Your task to perform on an android device: toggle priority inbox in the gmail app Image 0: 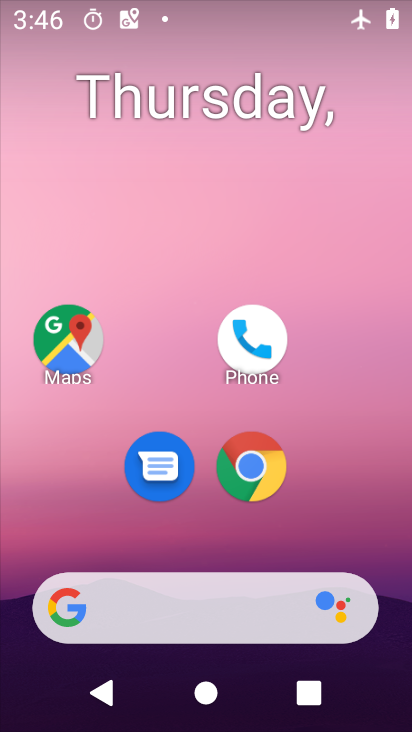
Step 0: drag from (213, 548) to (234, 173)
Your task to perform on an android device: toggle priority inbox in the gmail app Image 1: 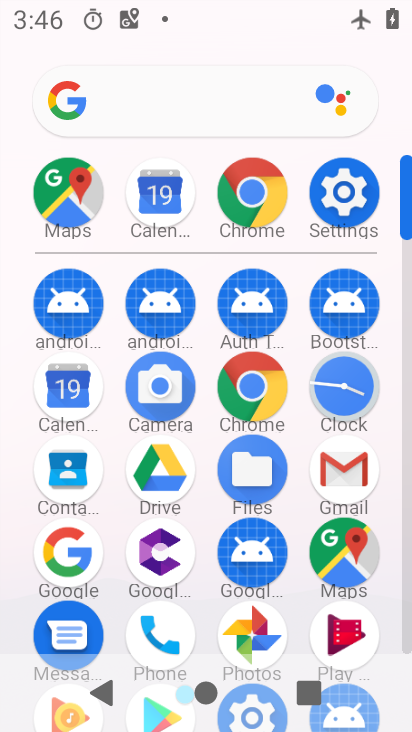
Step 1: click (333, 448)
Your task to perform on an android device: toggle priority inbox in the gmail app Image 2: 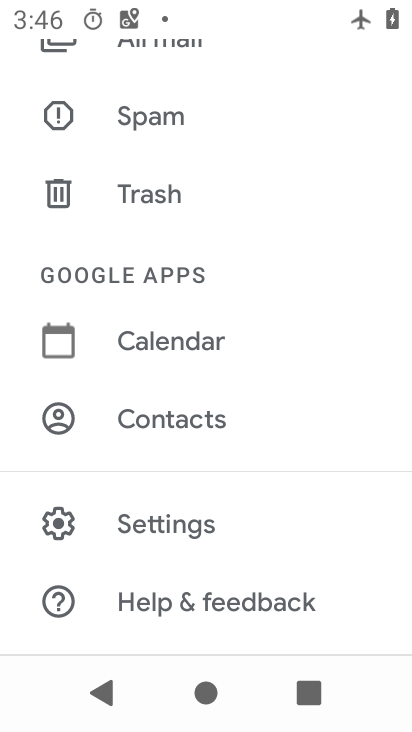
Step 2: click (185, 516)
Your task to perform on an android device: toggle priority inbox in the gmail app Image 3: 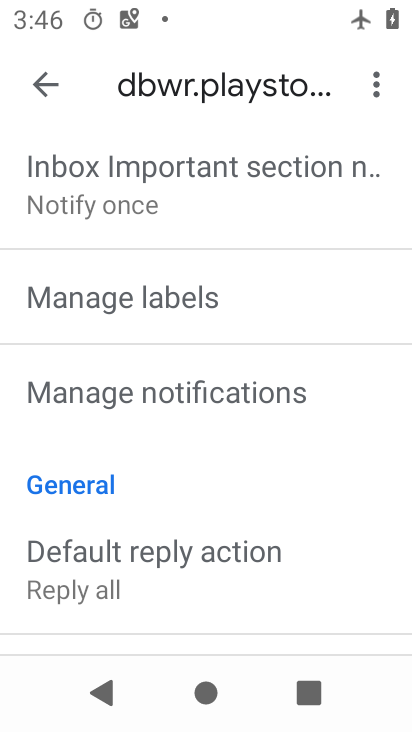
Step 3: drag from (214, 246) to (235, 718)
Your task to perform on an android device: toggle priority inbox in the gmail app Image 4: 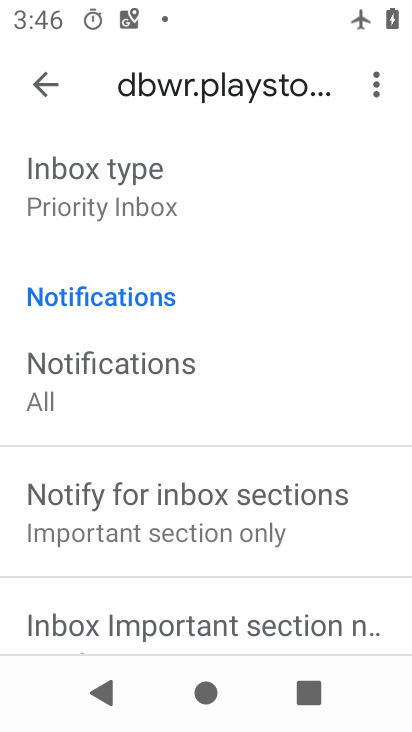
Step 4: drag from (159, 306) to (195, 619)
Your task to perform on an android device: toggle priority inbox in the gmail app Image 5: 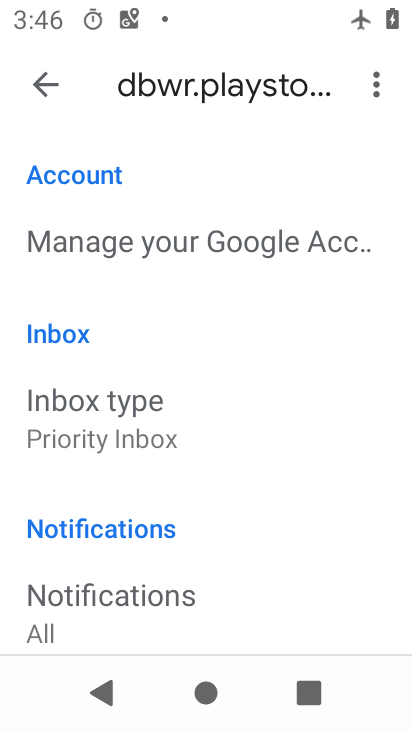
Step 5: click (127, 431)
Your task to perform on an android device: toggle priority inbox in the gmail app Image 6: 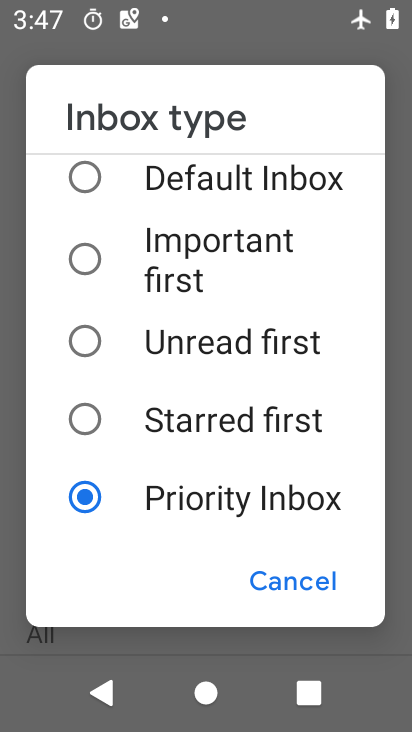
Step 6: click (163, 186)
Your task to perform on an android device: toggle priority inbox in the gmail app Image 7: 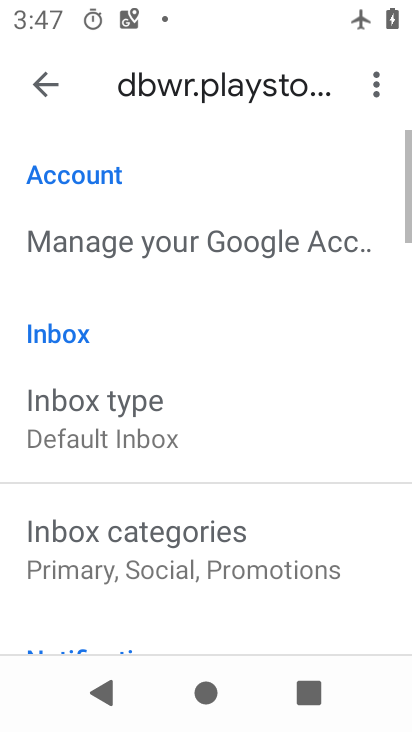
Step 7: task complete